Your task to perform on an android device: Go to battery settings Image 0: 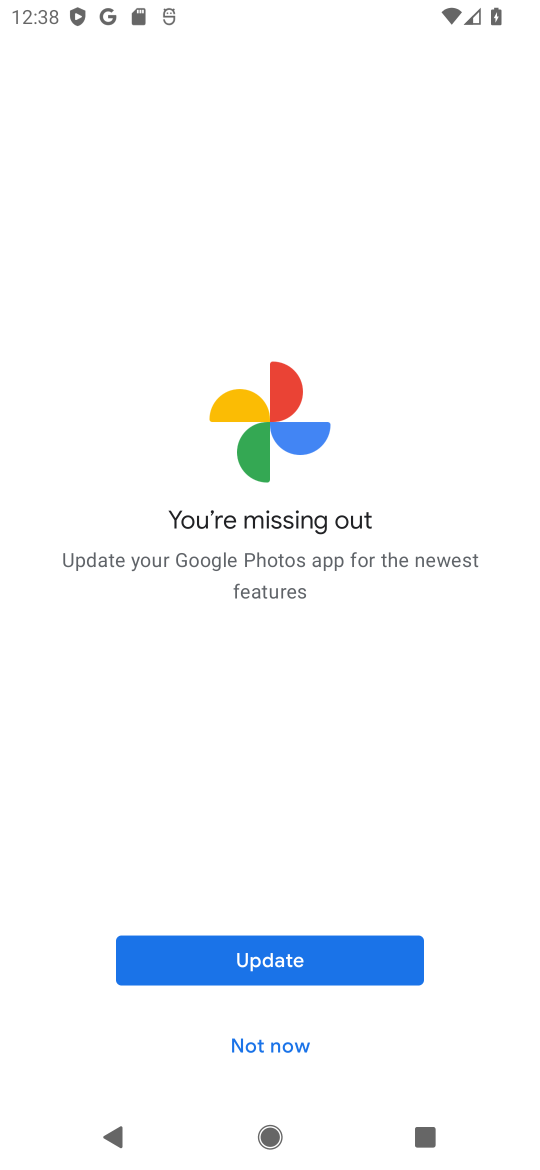
Step 0: press home button
Your task to perform on an android device: Go to battery settings Image 1: 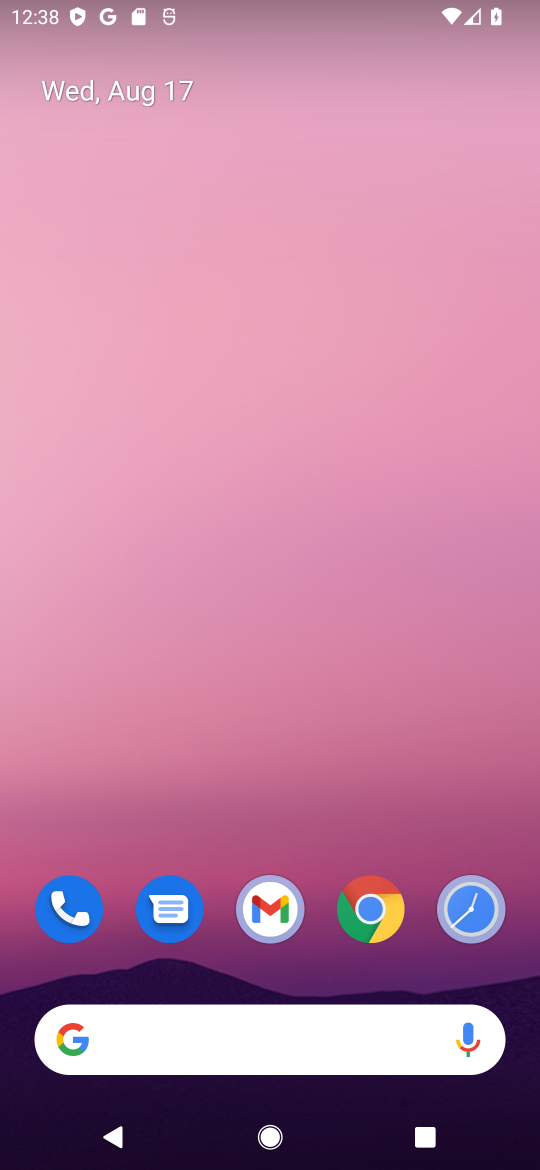
Step 1: drag from (281, 831) to (221, 208)
Your task to perform on an android device: Go to battery settings Image 2: 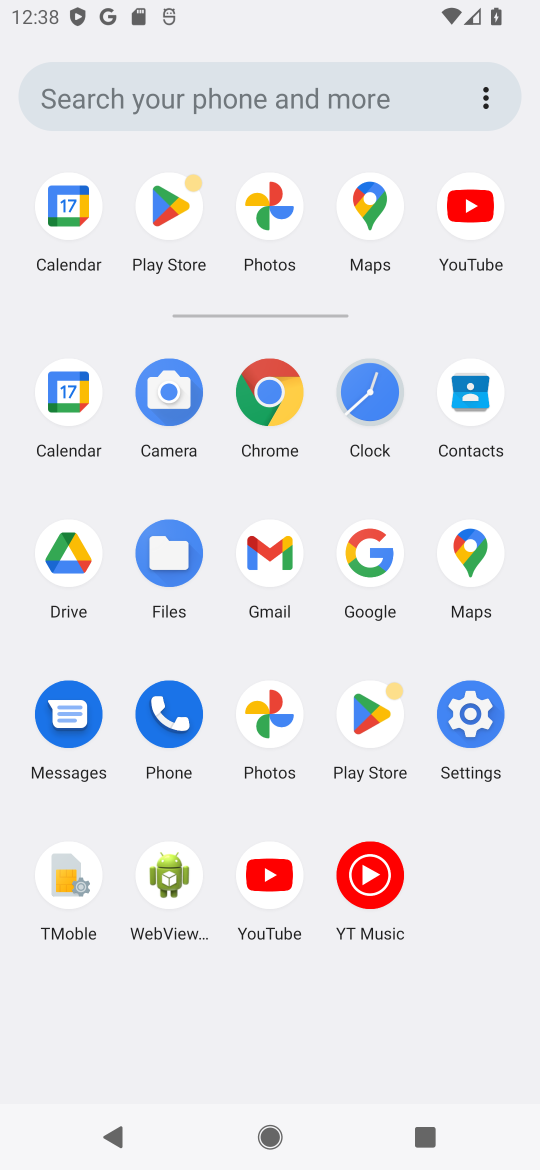
Step 2: click (467, 717)
Your task to perform on an android device: Go to battery settings Image 3: 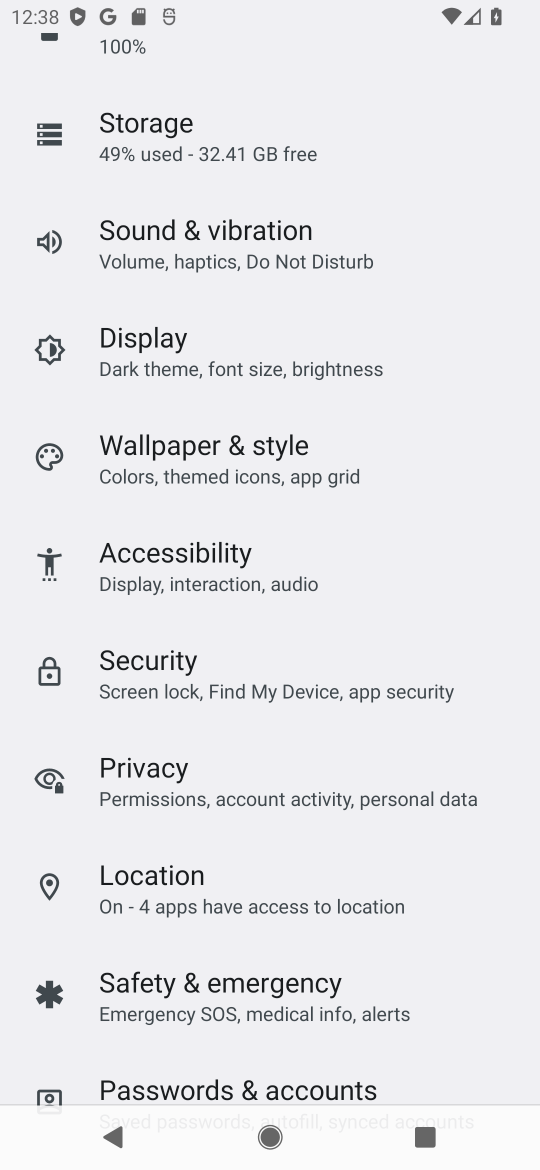
Step 3: drag from (327, 350) to (495, 1016)
Your task to perform on an android device: Go to battery settings Image 4: 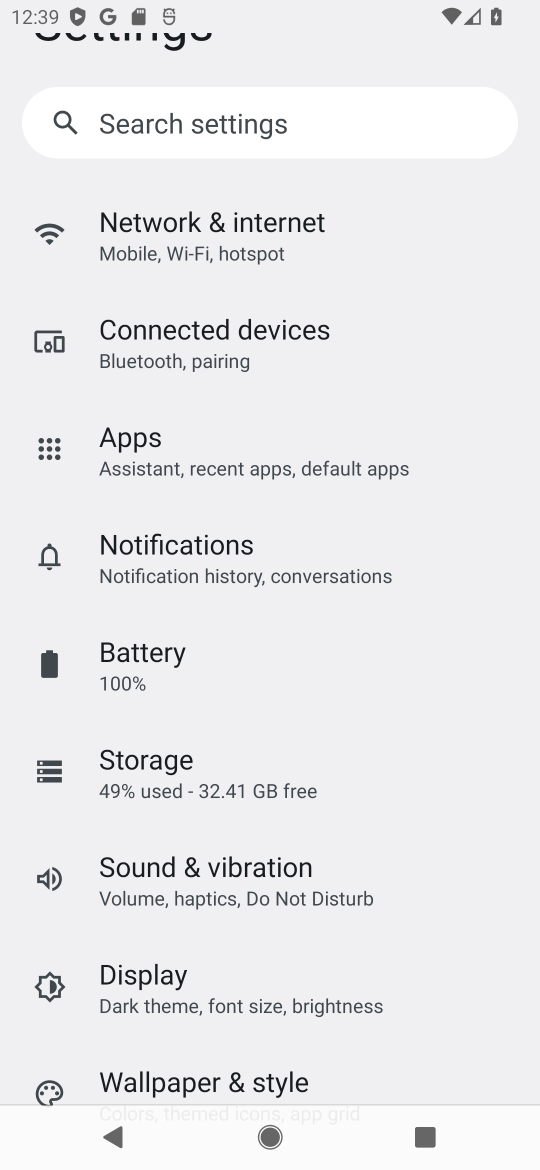
Step 4: click (137, 646)
Your task to perform on an android device: Go to battery settings Image 5: 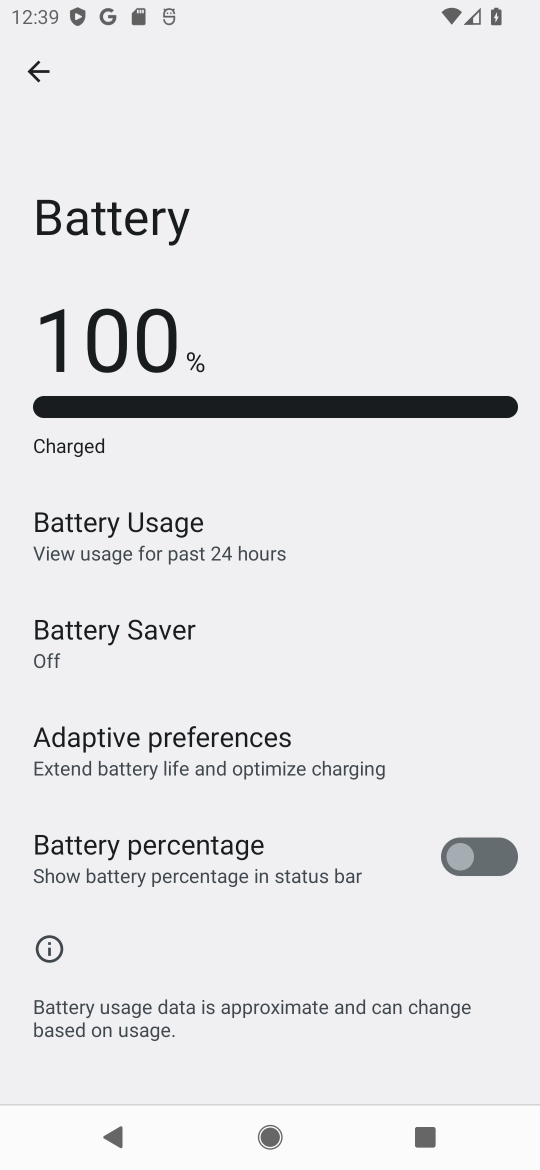
Step 5: task complete